Your task to perform on an android device: change the upload size in google photos Image 0: 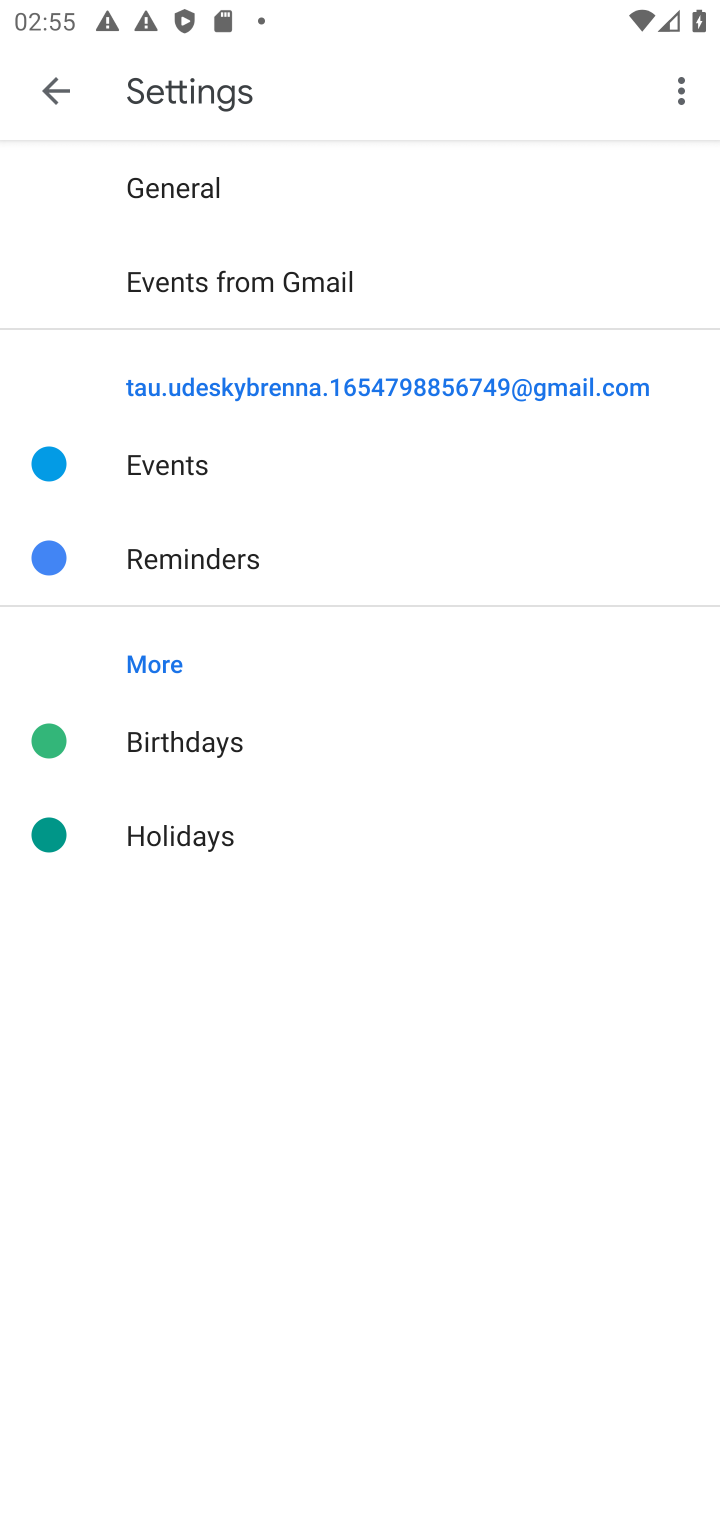
Step 0: press home button
Your task to perform on an android device: change the upload size in google photos Image 1: 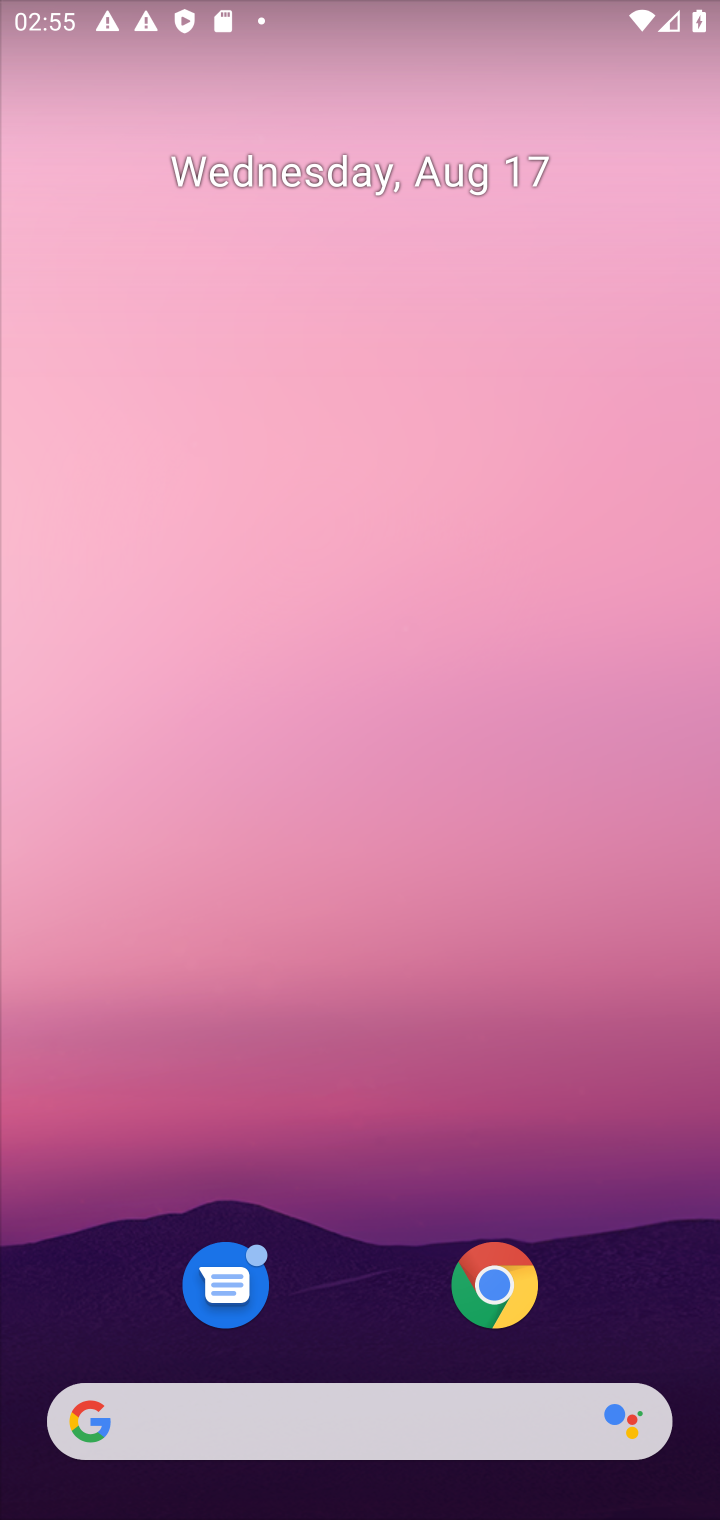
Step 1: drag from (382, 1319) to (354, 13)
Your task to perform on an android device: change the upload size in google photos Image 2: 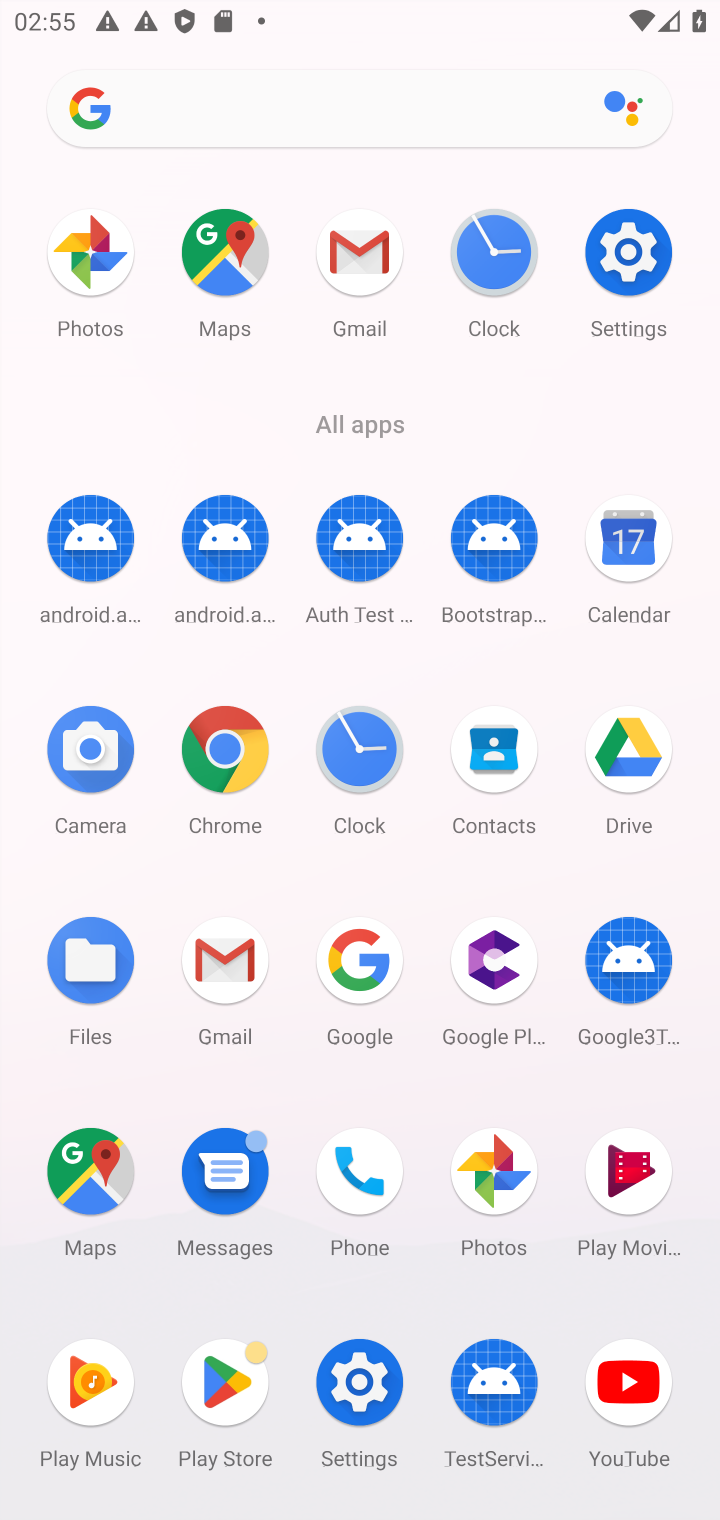
Step 2: click (439, 1170)
Your task to perform on an android device: change the upload size in google photos Image 3: 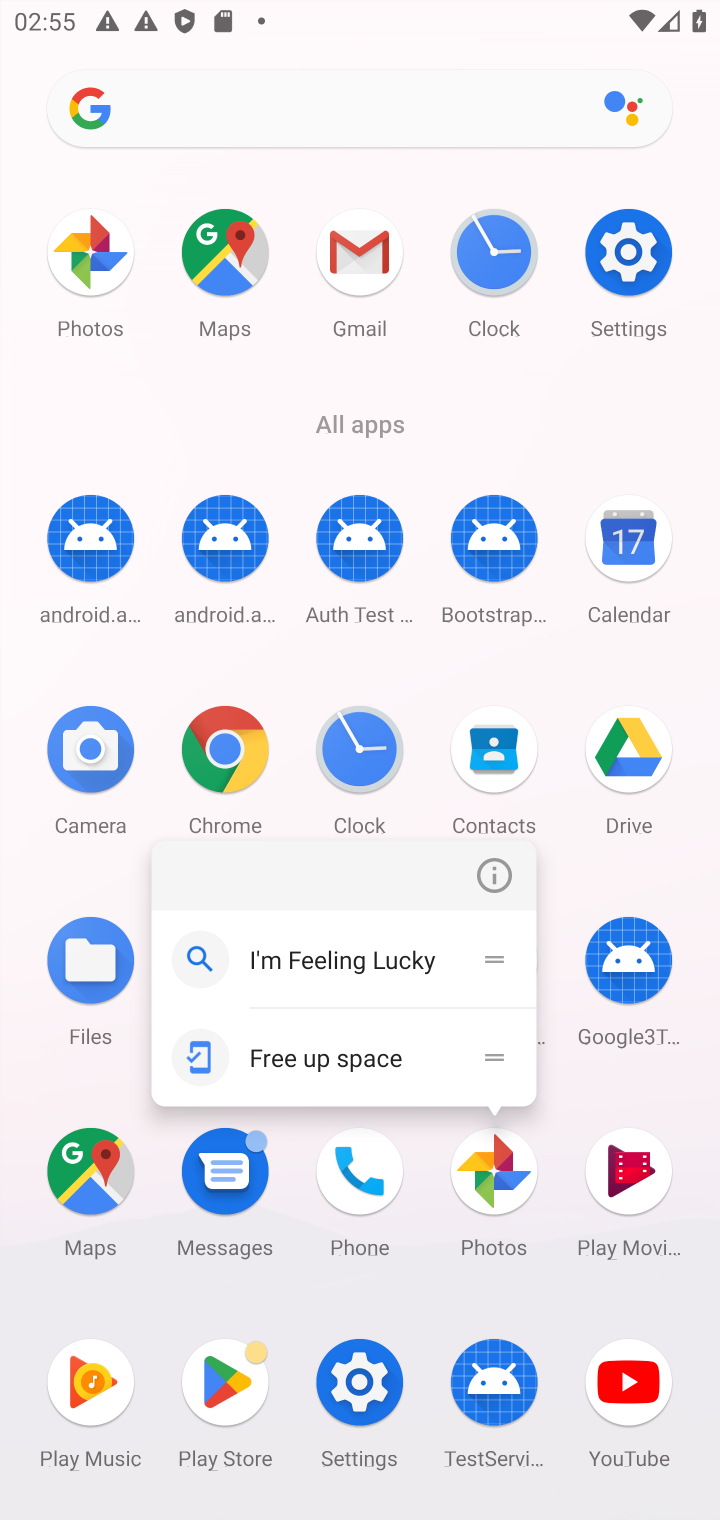
Step 3: click (523, 1165)
Your task to perform on an android device: change the upload size in google photos Image 4: 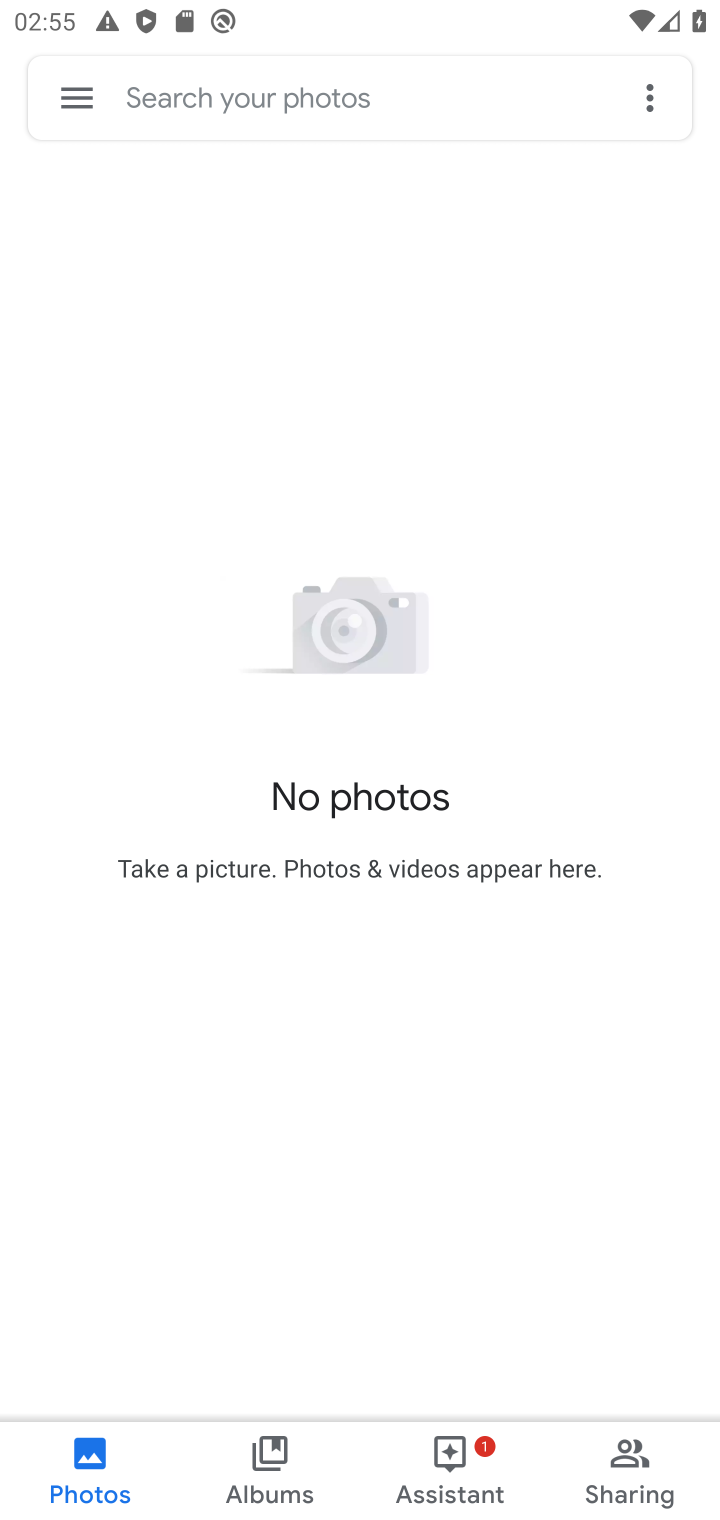
Step 4: click (89, 88)
Your task to perform on an android device: change the upload size in google photos Image 5: 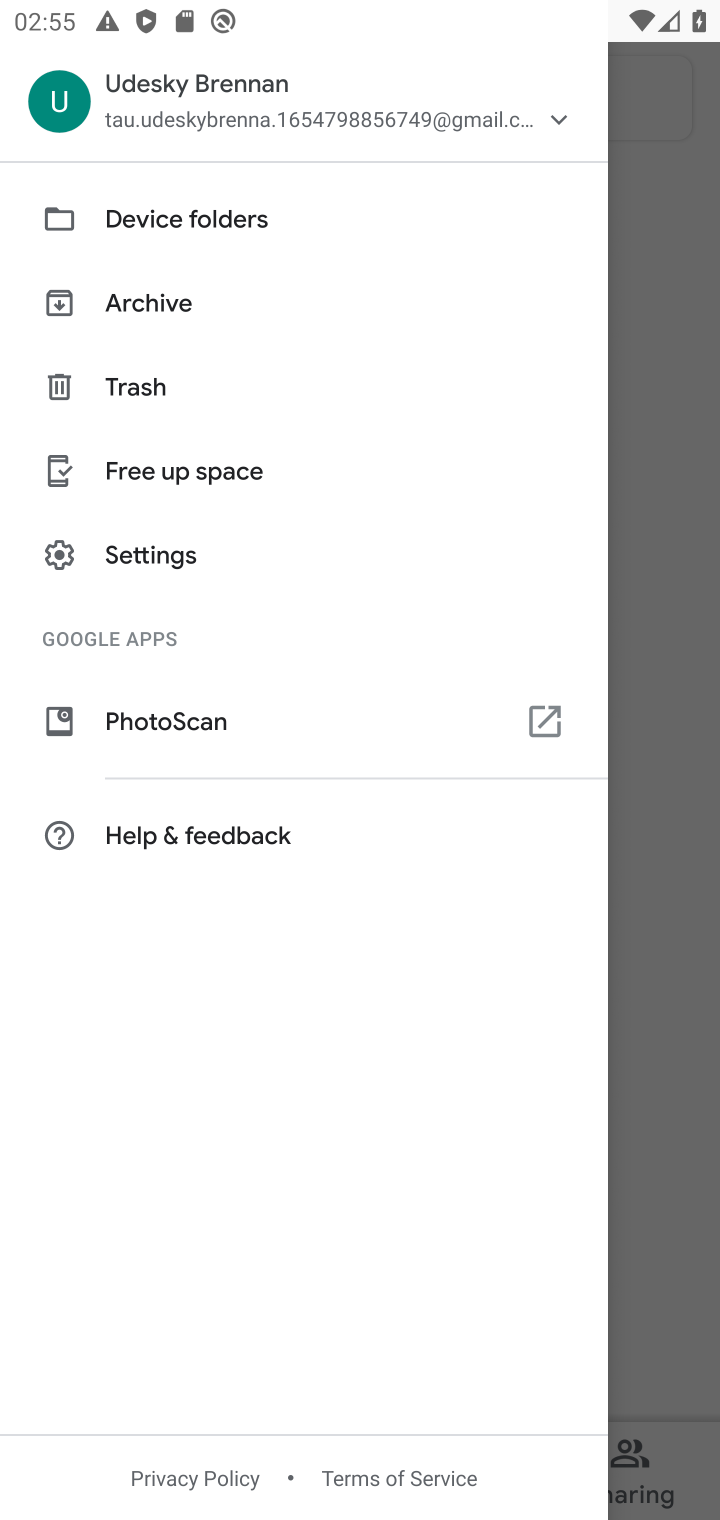
Step 5: click (123, 552)
Your task to perform on an android device: change the upload size in google photos Image 6: 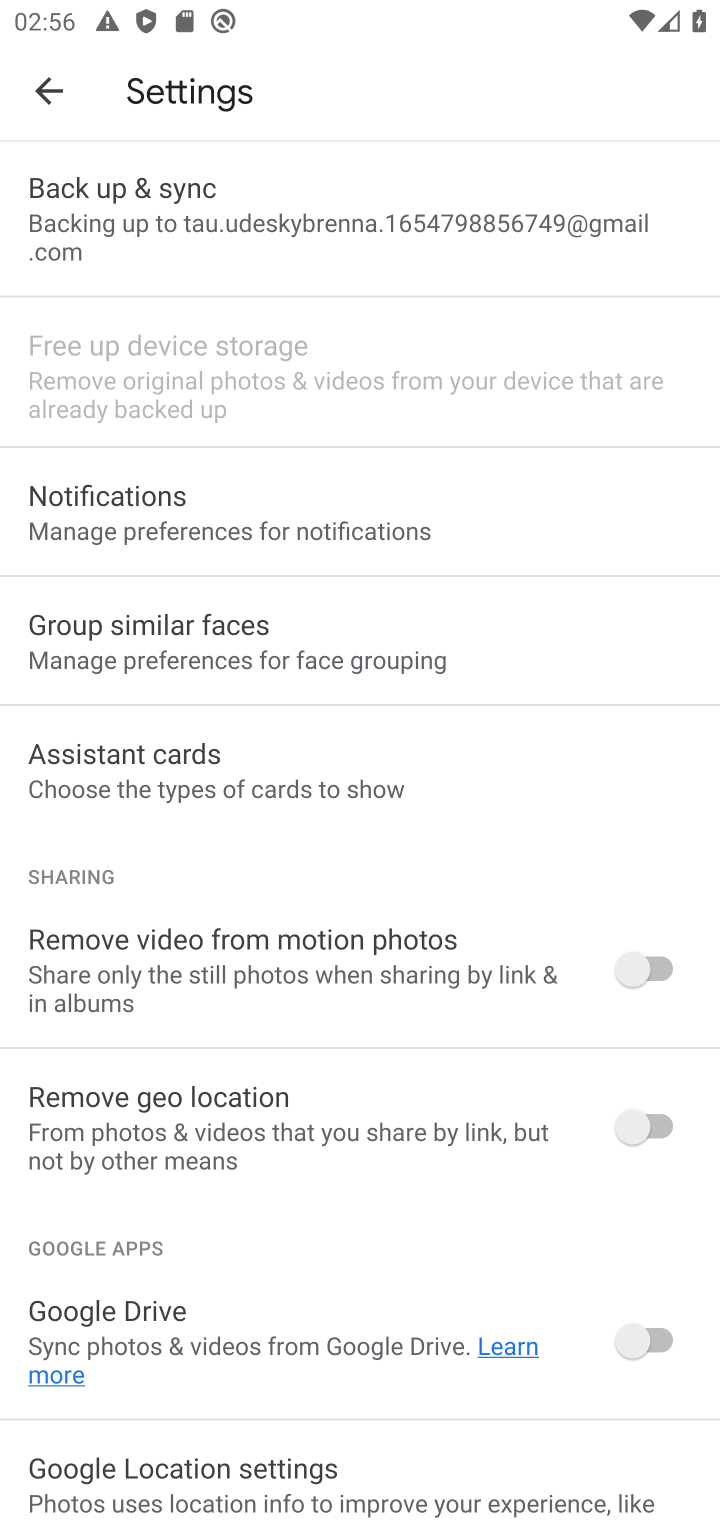
Step 6: click (188, 211)
Your task to perform on an android device: change the upload size in google photos Image 7: 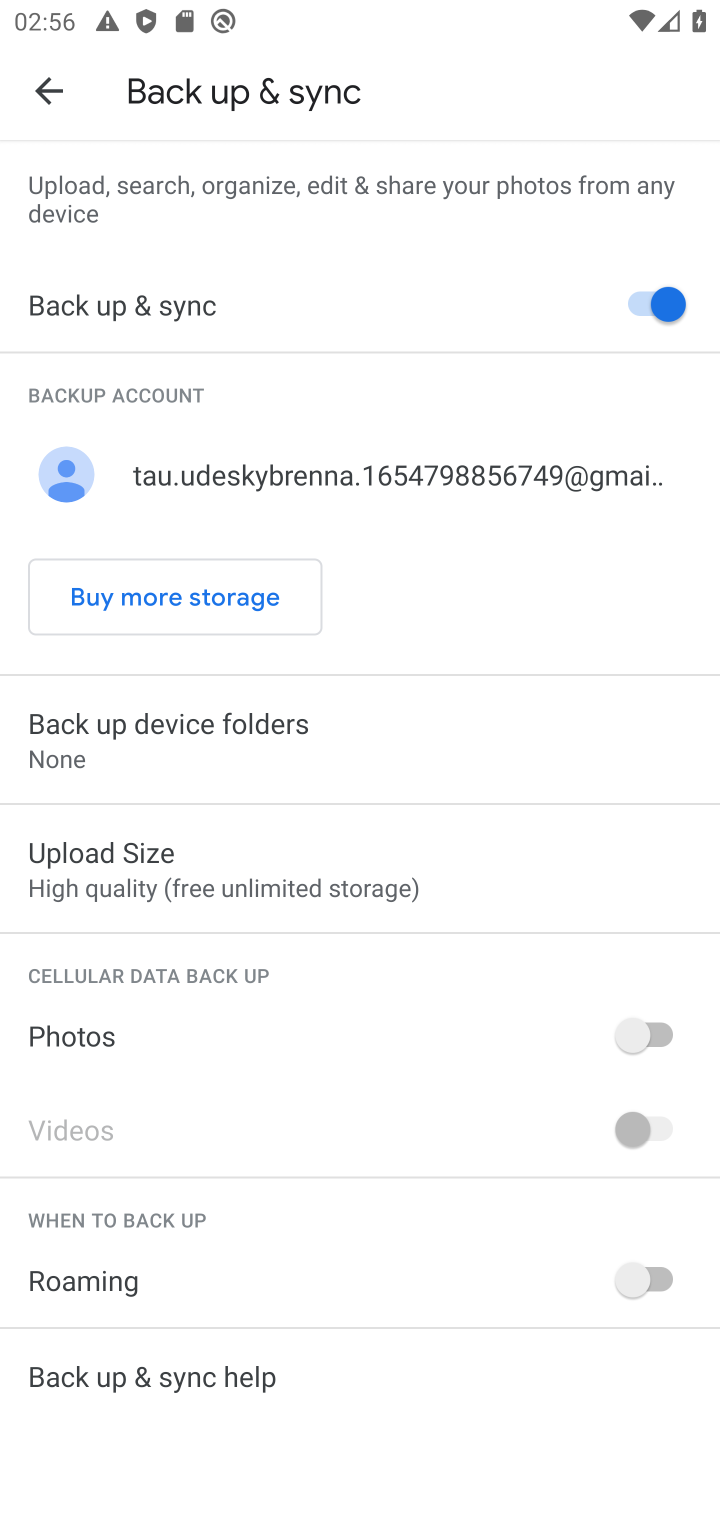
Step 7: click (191, 870)
Your task to perform on an android device: change the upload size in google photos Image 8: 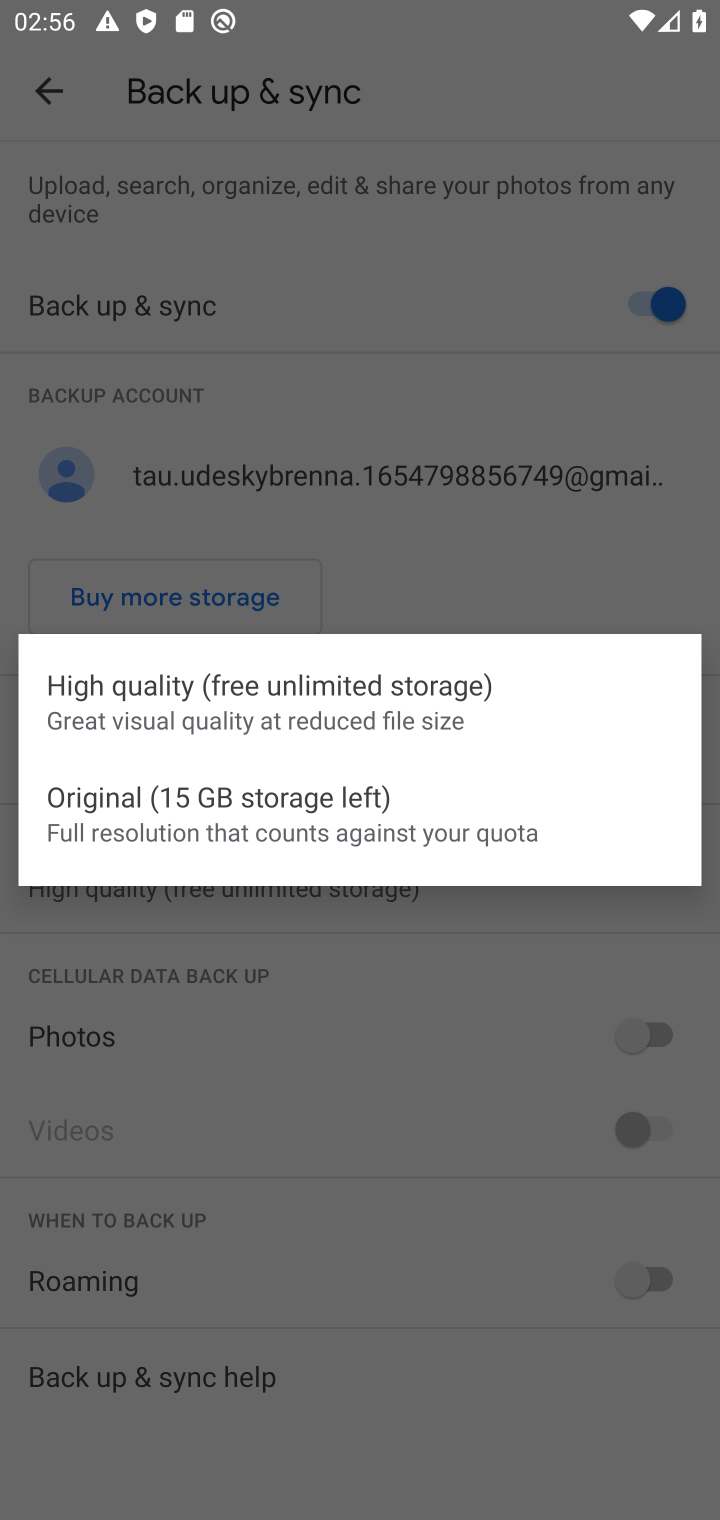
Step 8: click (214, 837)
Your task to perform on an android device: change the upload size in google photos Image 9: 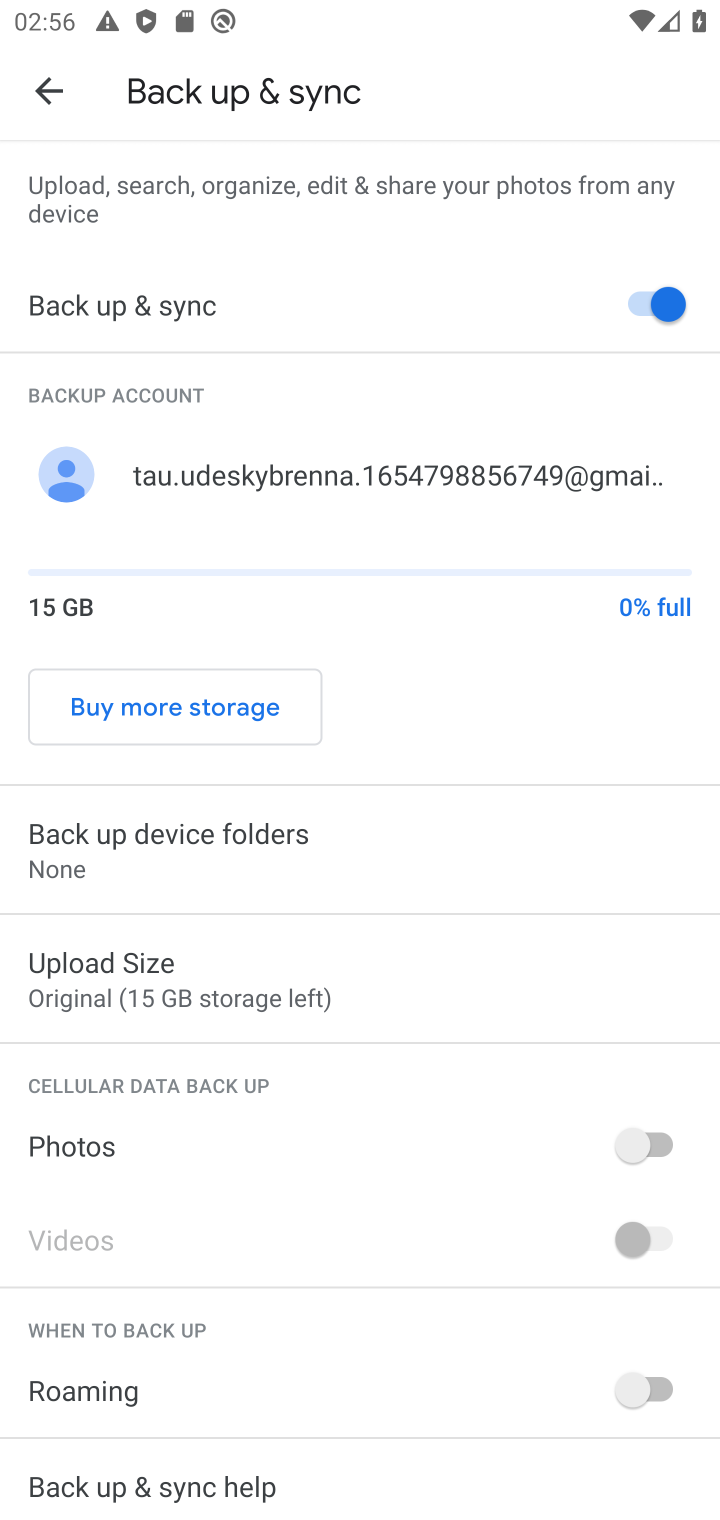
Step 9: task complete